Your task to perform on an android device: Open Chrome and go to settings Image 0: 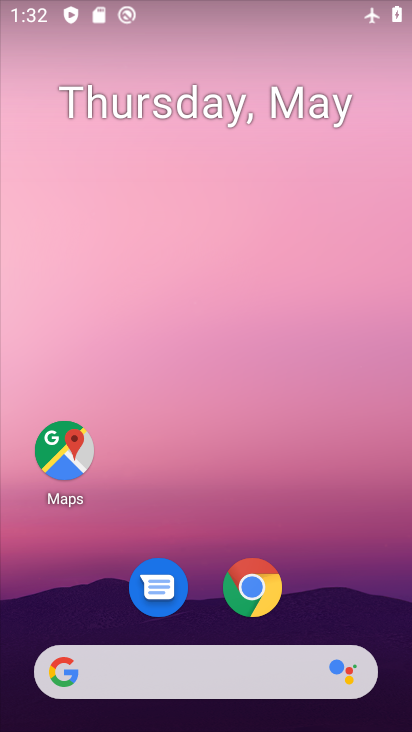
Step 0: click (243, 596)
Your task to perform on an android device: Open Chrome and go to settings Image 1: 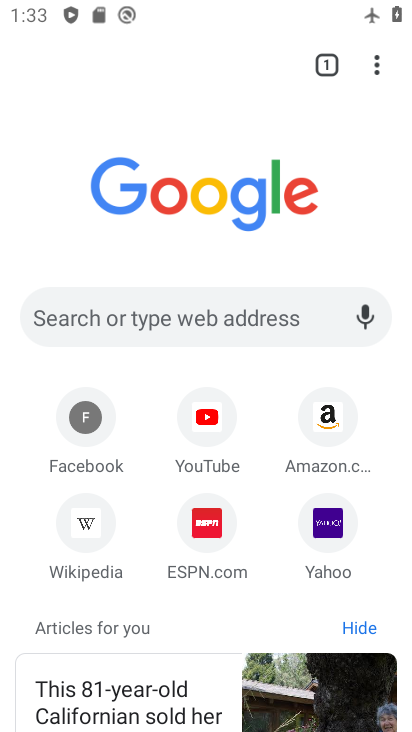
Step 1: click (375, 60)
Your task to perform on an android device: Open Chrome and go to settings Image 2: 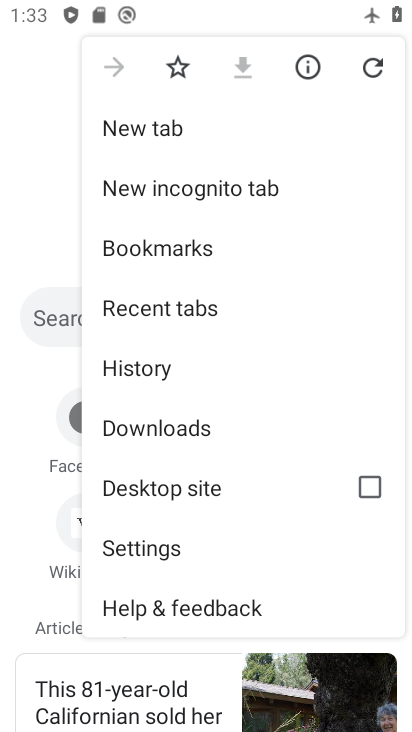
Step 2: click (151, 543)
Your task to perform on an android device: Open Chrome and go to settings Image 3: 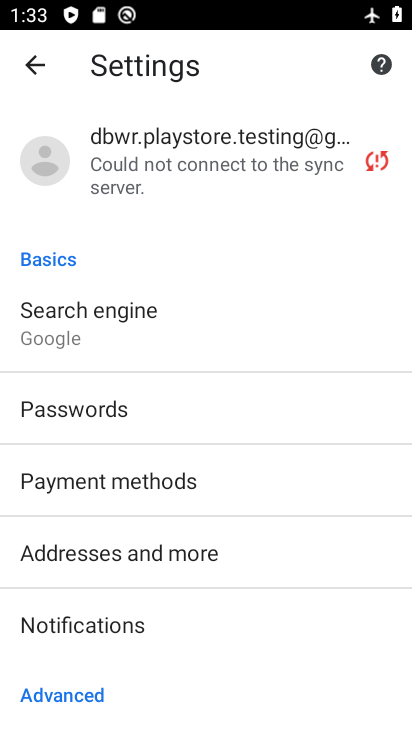
Step 3: task complete